Your task to perform on an android device: Open Youtube and go to the subscriptions tab Image 0: 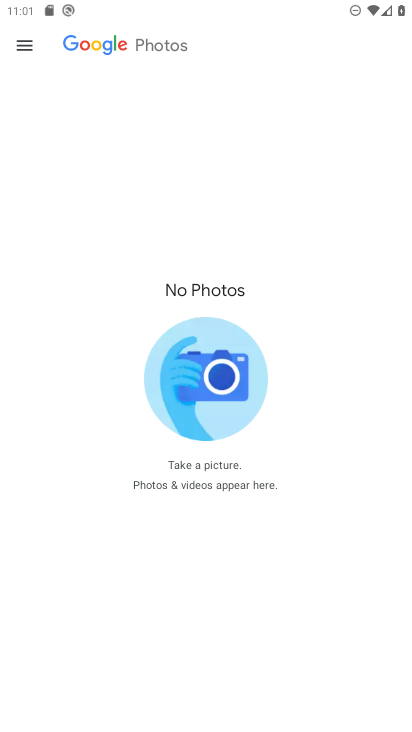
Step 0: press home button
Your task to perform on an android device: Open Youtube and go to the subscriptions tab Image 1: 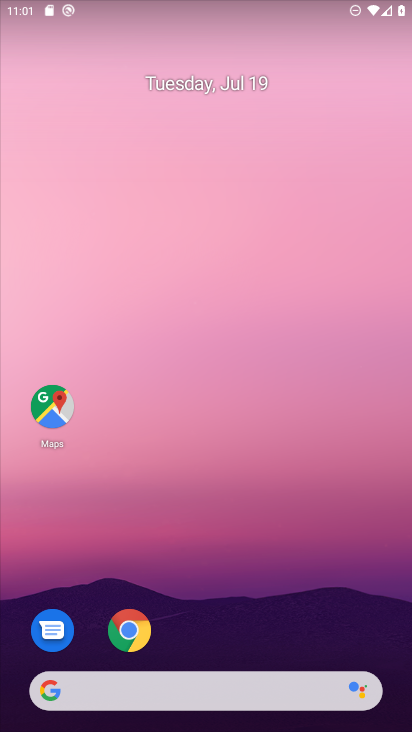
Step 1: drag from (208, 595) to (178, 155)
Your task to perform on an android device: Open Youtube and go to the subscriptions tab Image 2: 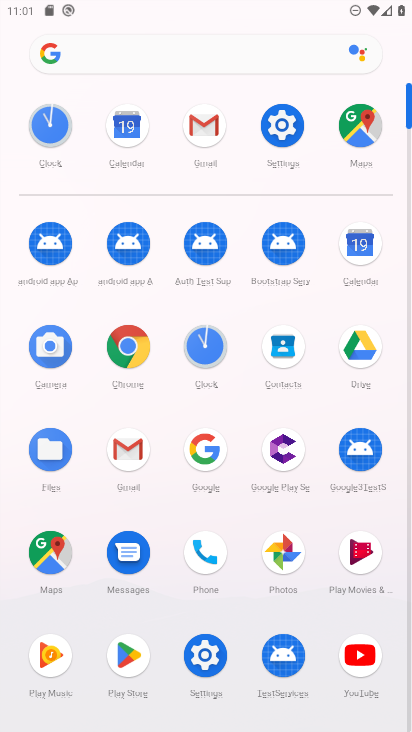
Step 2: click (352, 656)
Your task to perform on an android device: Open Youtube and go to the subscriptions tab Image 3: 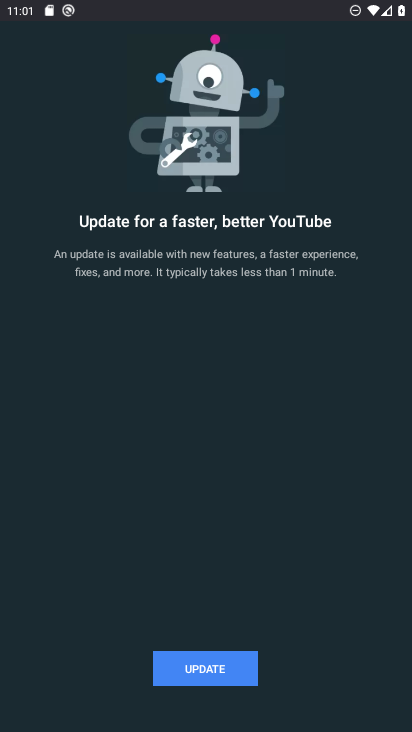
Step 3: click (208, 658)
Your task to perform on an android device: Open Youtube and go to the subscriptions tab Image 4: 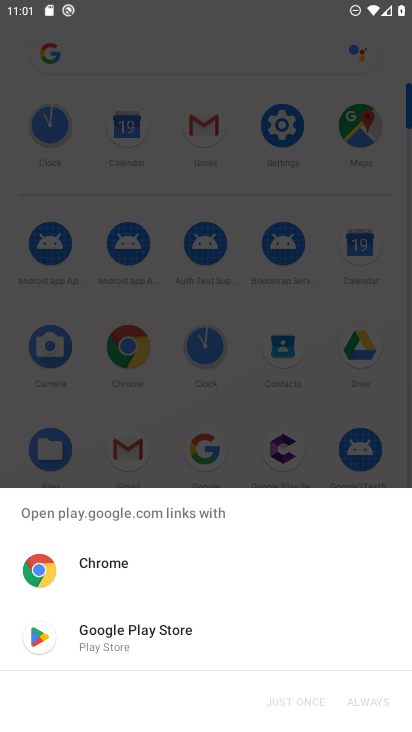
Step 4: click (149, 636)
Your task to perform on an android device: Open Youtube and go to the subscriptions tab Image 5: 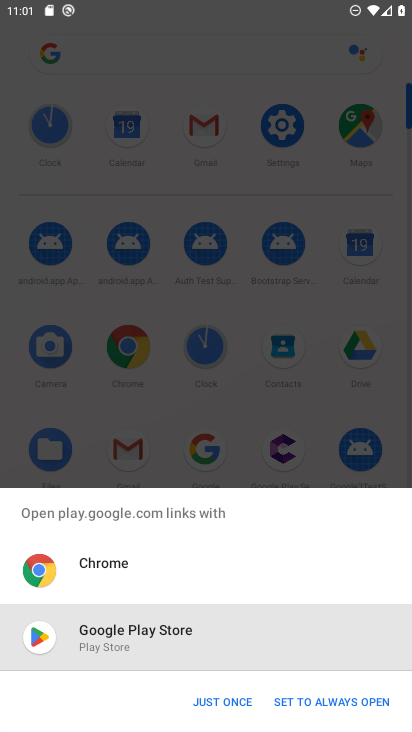
Step 5: click (244, 699)
Your task to perform on an android device: Open Youtube and go to the subscriptions tab Image 6: 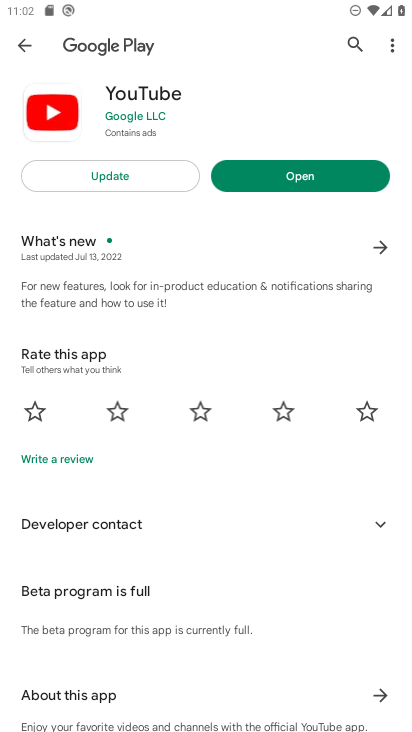
Step 6: click (122, 187)
Your task to perform on an android device: Open Youtube and go to the subscriptions tab Image 7: 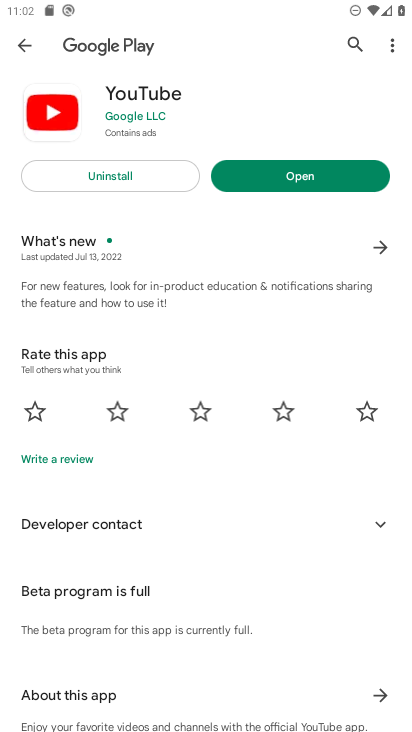
Step 7: click (290, 179)
Your task to perform on an android device: Open Youtube and go to the subscriptions tab Image 8: 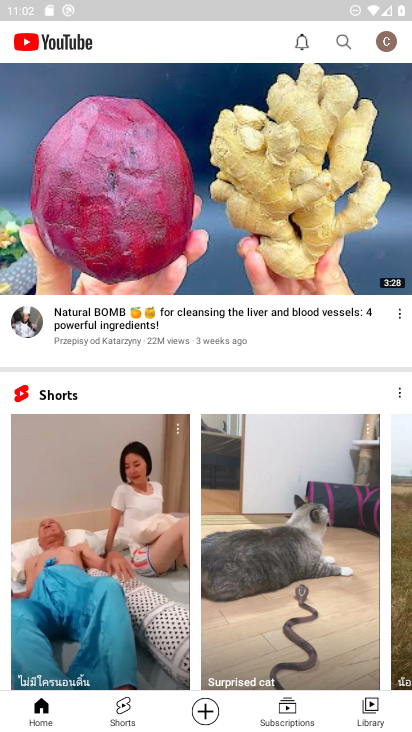
Step 8: click (277, 703)
Your task to perform on an android device: Open Youtube and go to the subscriptions tab Image 9: 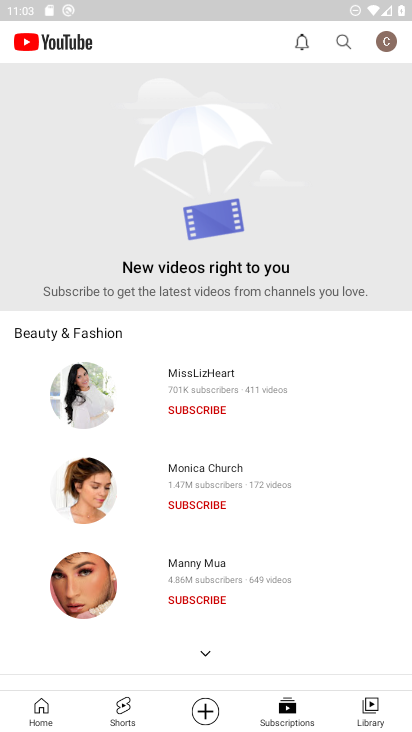
Step 9: task complete